Your task to perform on an android device: install app "Lyft - Rideshare, Bikes, Scooters & Transit" Image 0: 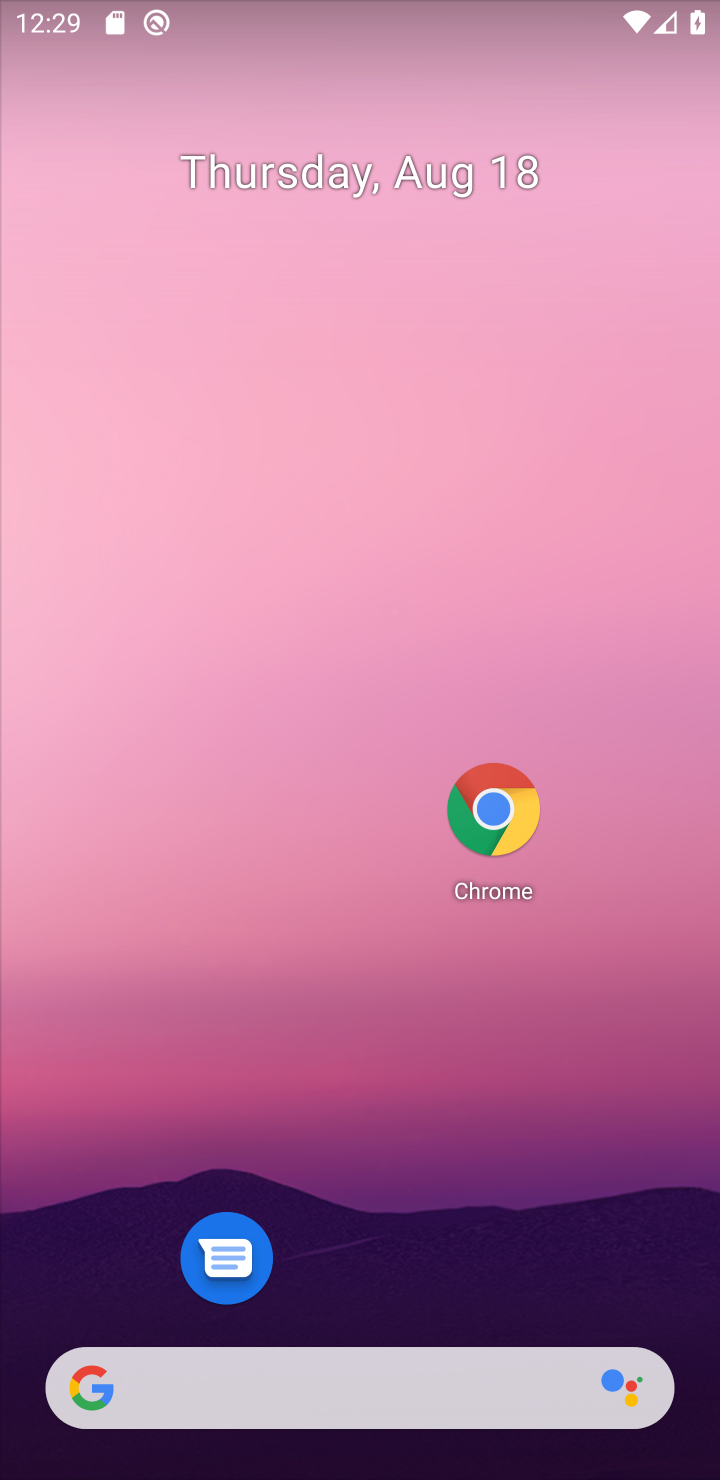
Step 0: drag from (386, 1152) to (401, 283)
Your task to perform on an android device: install app "Lyft - Rideshare, Bikes, Scooters & Transit" Image 1: 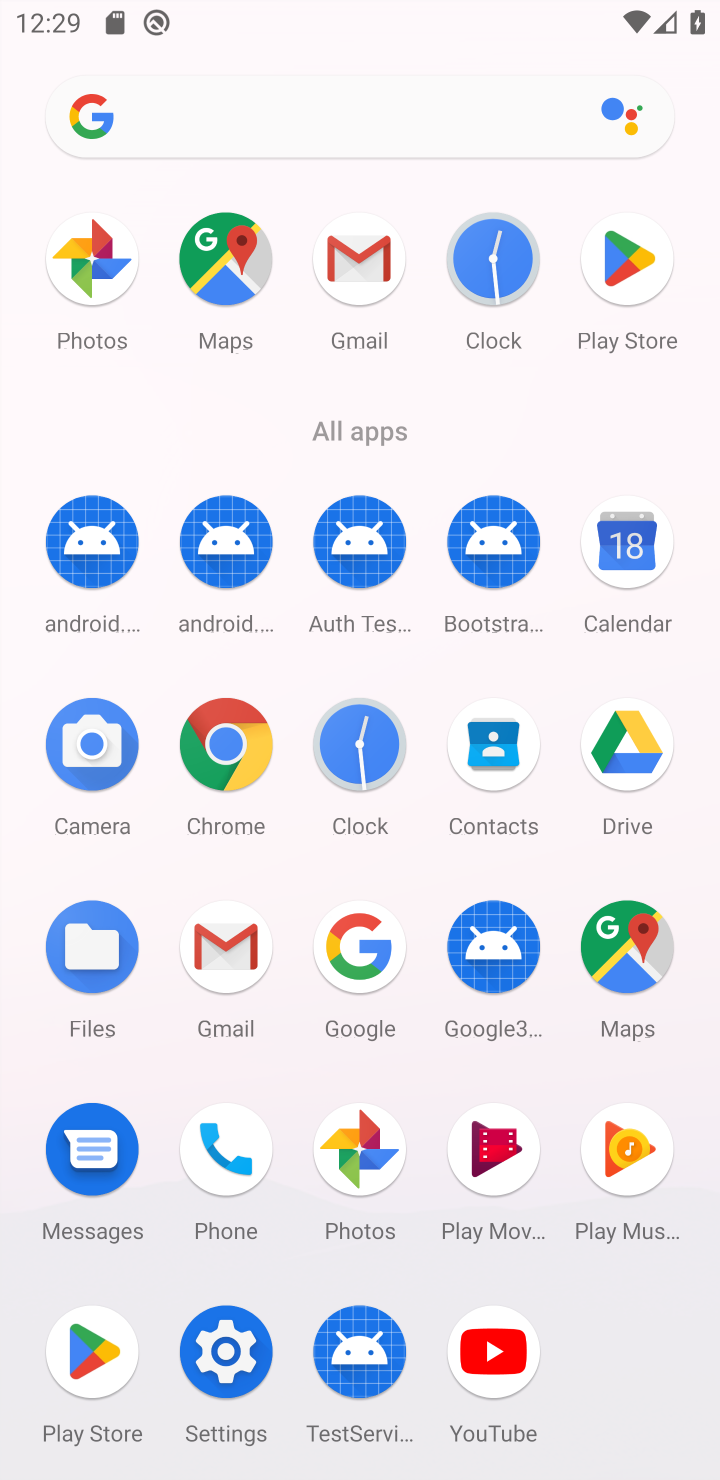
Step 1: click (616, 255)
Your task to perform on an android device: install app "Lyft - Rideshare, Bikes, Scooters & Transit" Image 2: 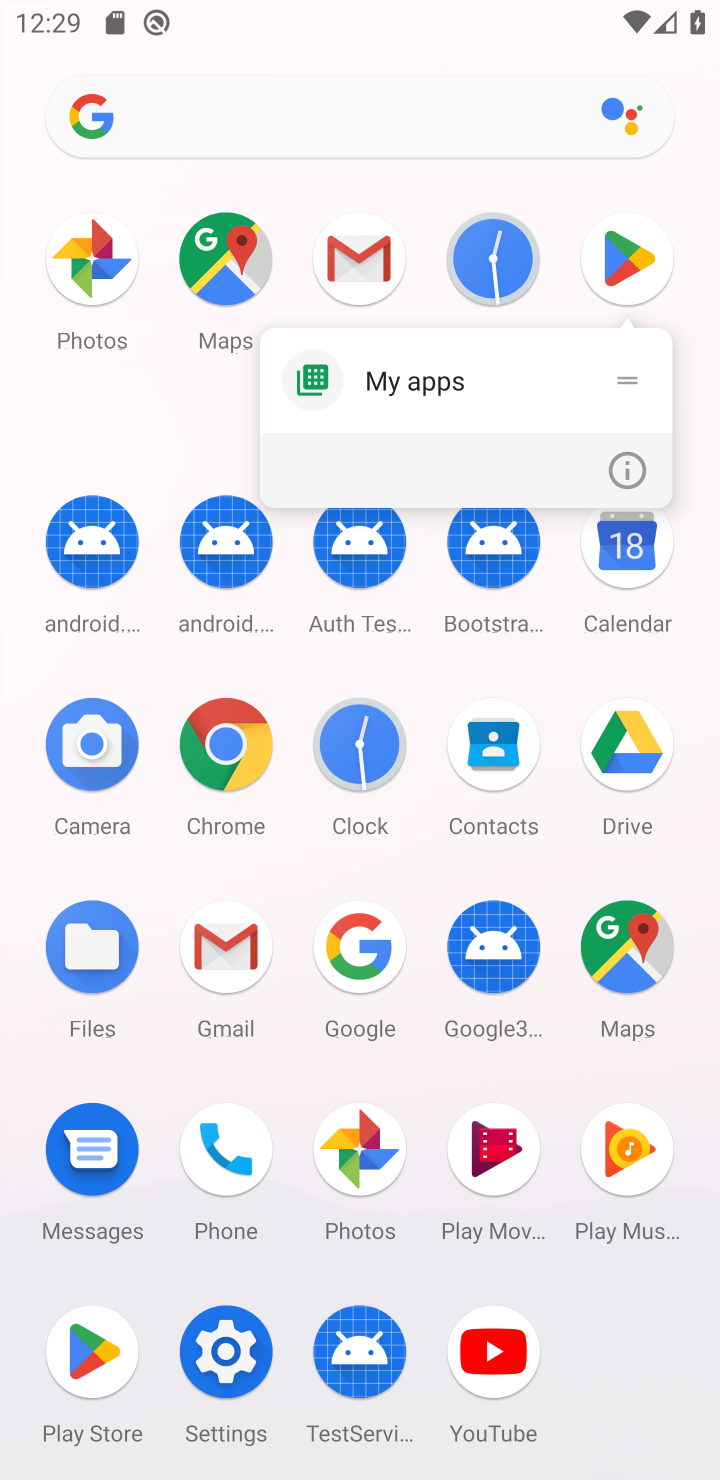
Step 2: click (616, 259)
Your task to perform on an android device: install app "Lyft - Rideshare, Bikes, Scooters & Transit" Image 3: 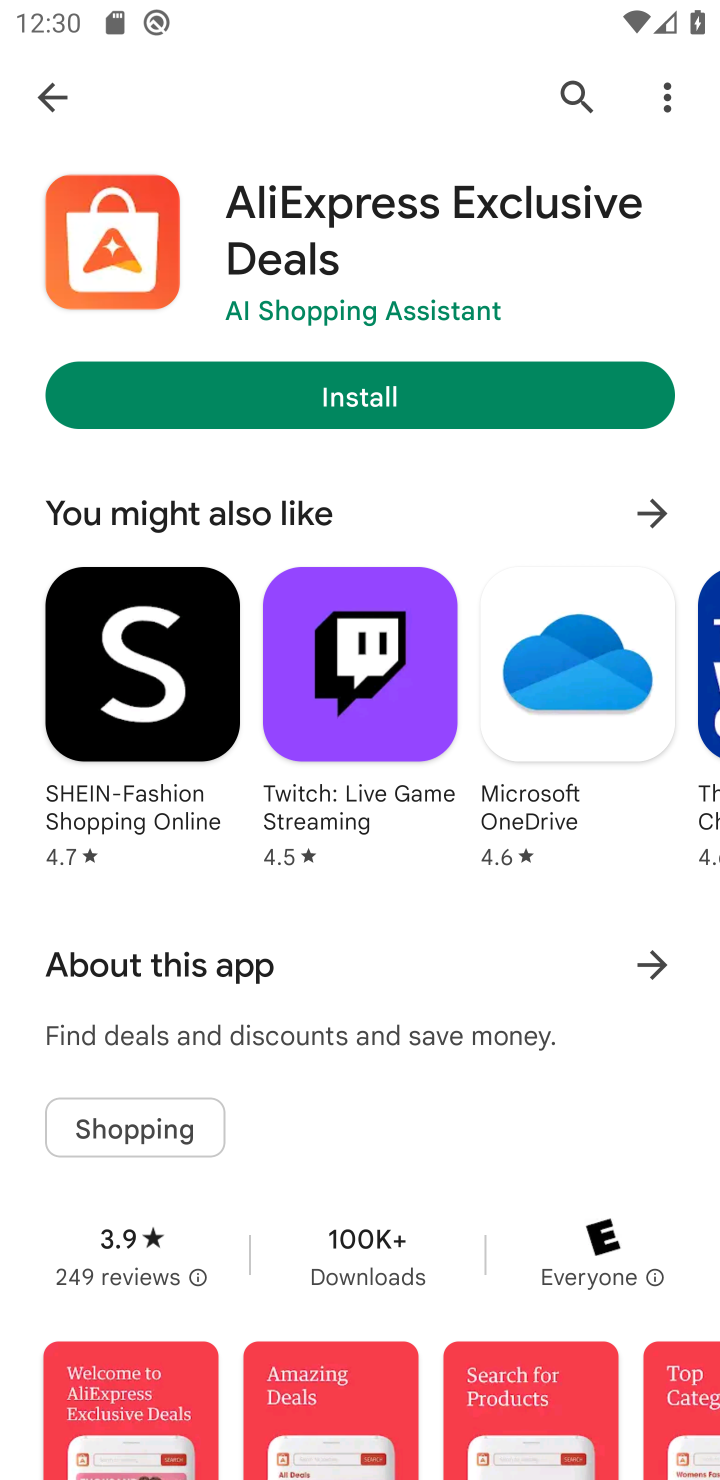
Step 3: click (42, 89)
Your task to perform on an android device: install app "Lyft - Rideshare, Bikes, Scooters & Transit" Image 4: 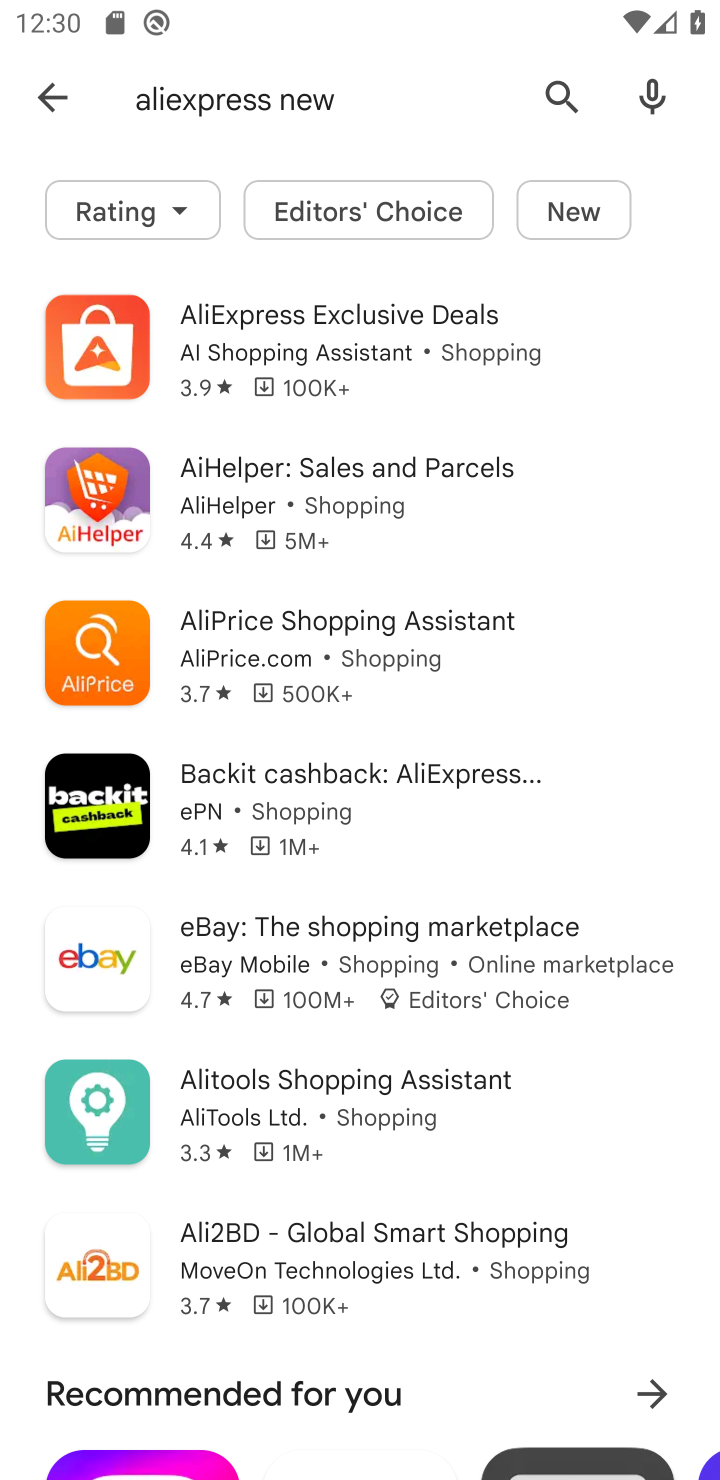
Step 4: click (56, 73)
Your task to perform on an android device: install app "Lyft - Rideshare, Bikes, Scooters & Transit" Image 5: 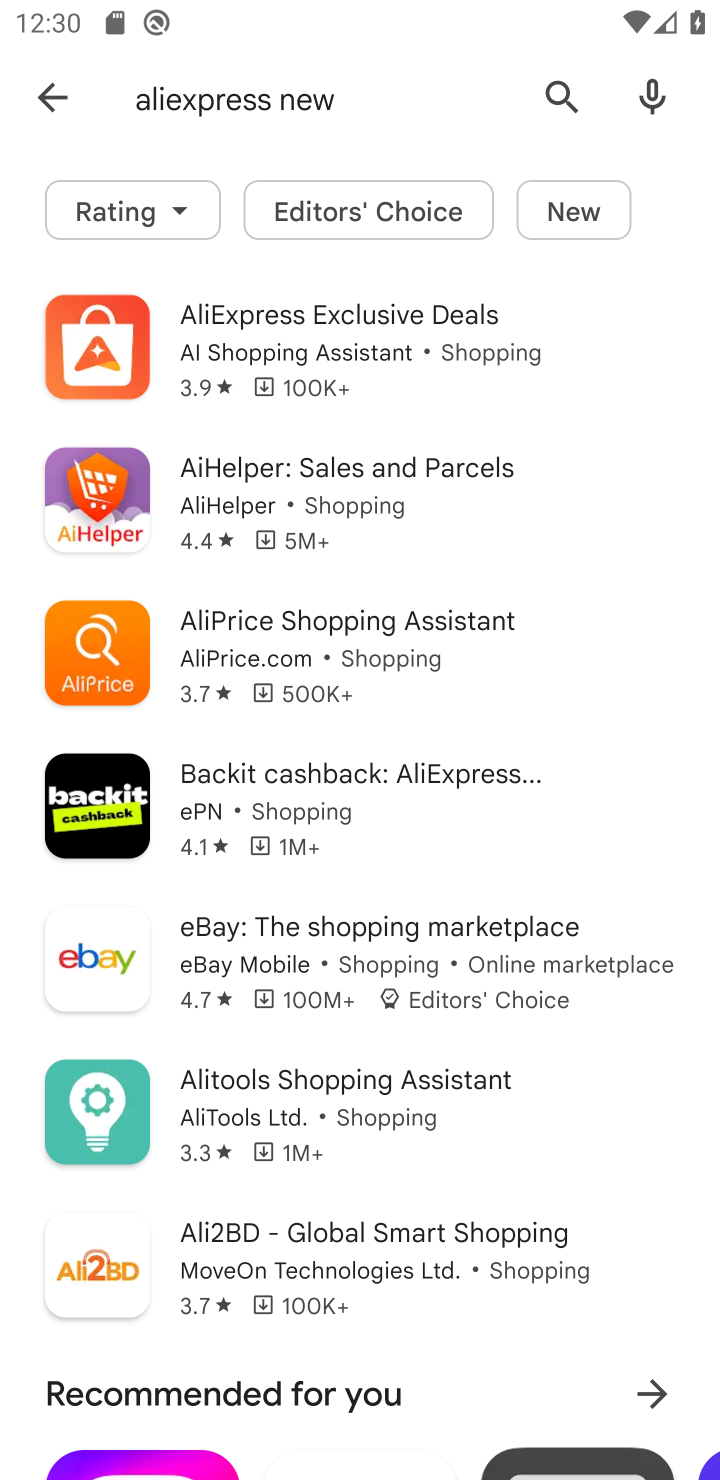
Step 5: click (63, 100)
Your task to perform on an android device: install app "Lyft - Rideshare, Bikes, Scooters & Transit" Image 6: 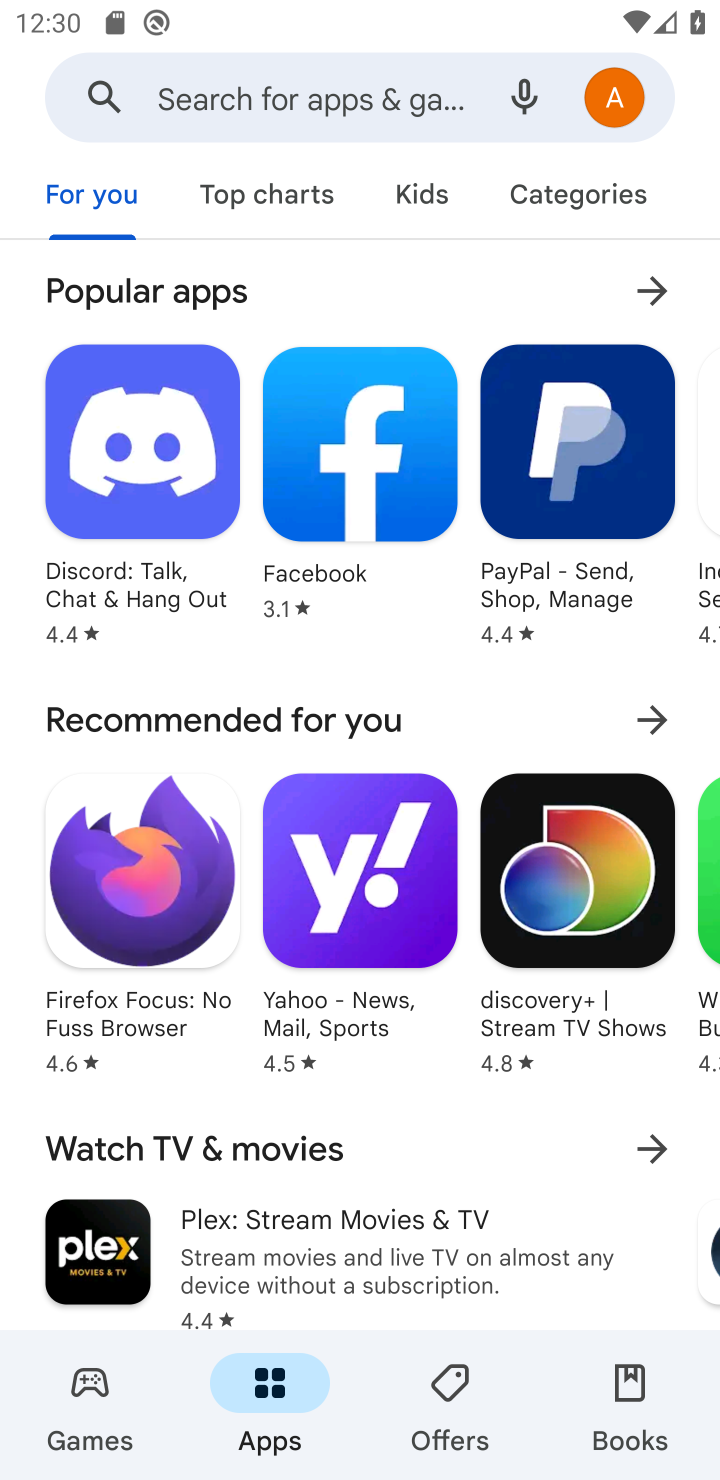
Step 6: click (305, 79)
Your task to perform on an android device: install app "Lyft - Rideshare, Bikes, Scooters & Transit" Image 7: 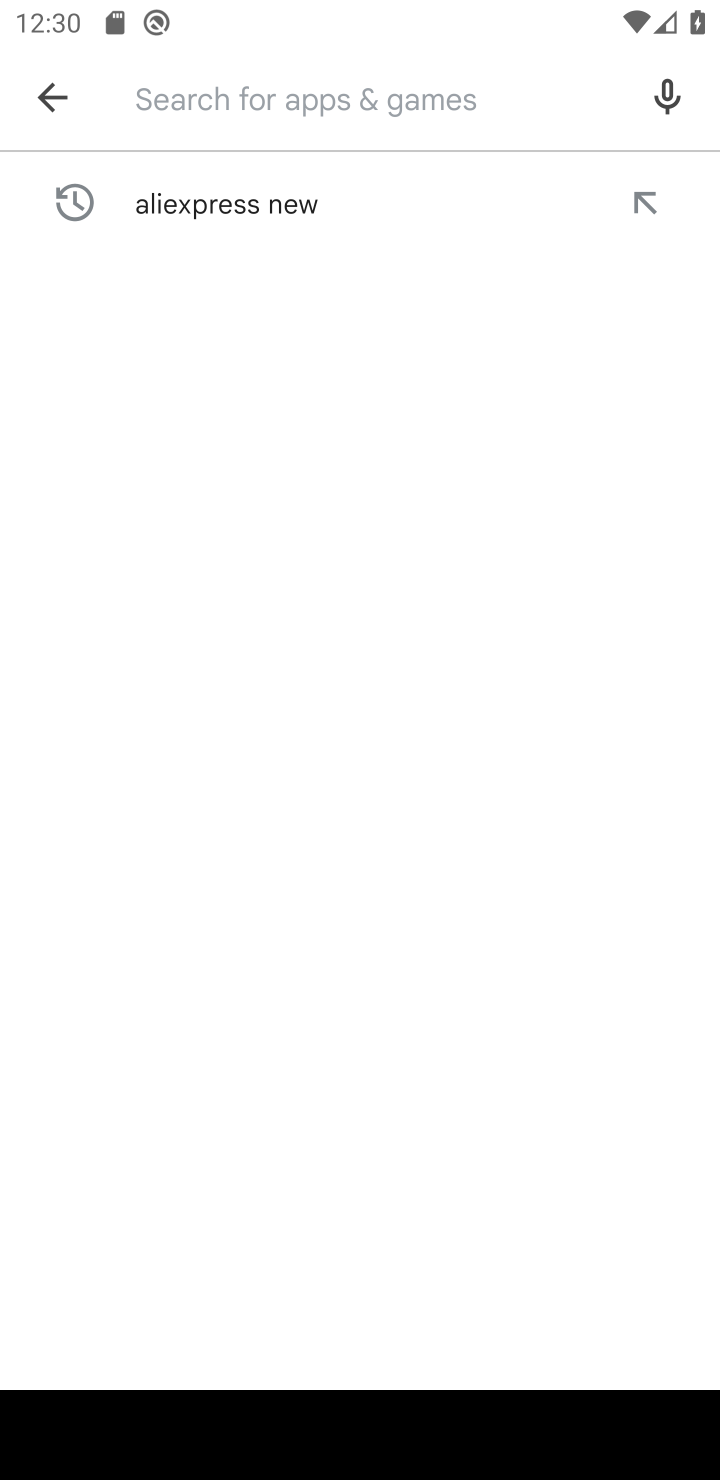
Step 7: type "Lyft - Rideshare, Bikes, Scooters & Transi "
Your task to perform on an android device: install app "Lyft - Rideshare, Bikes, Scooters & Transit" Image 8: 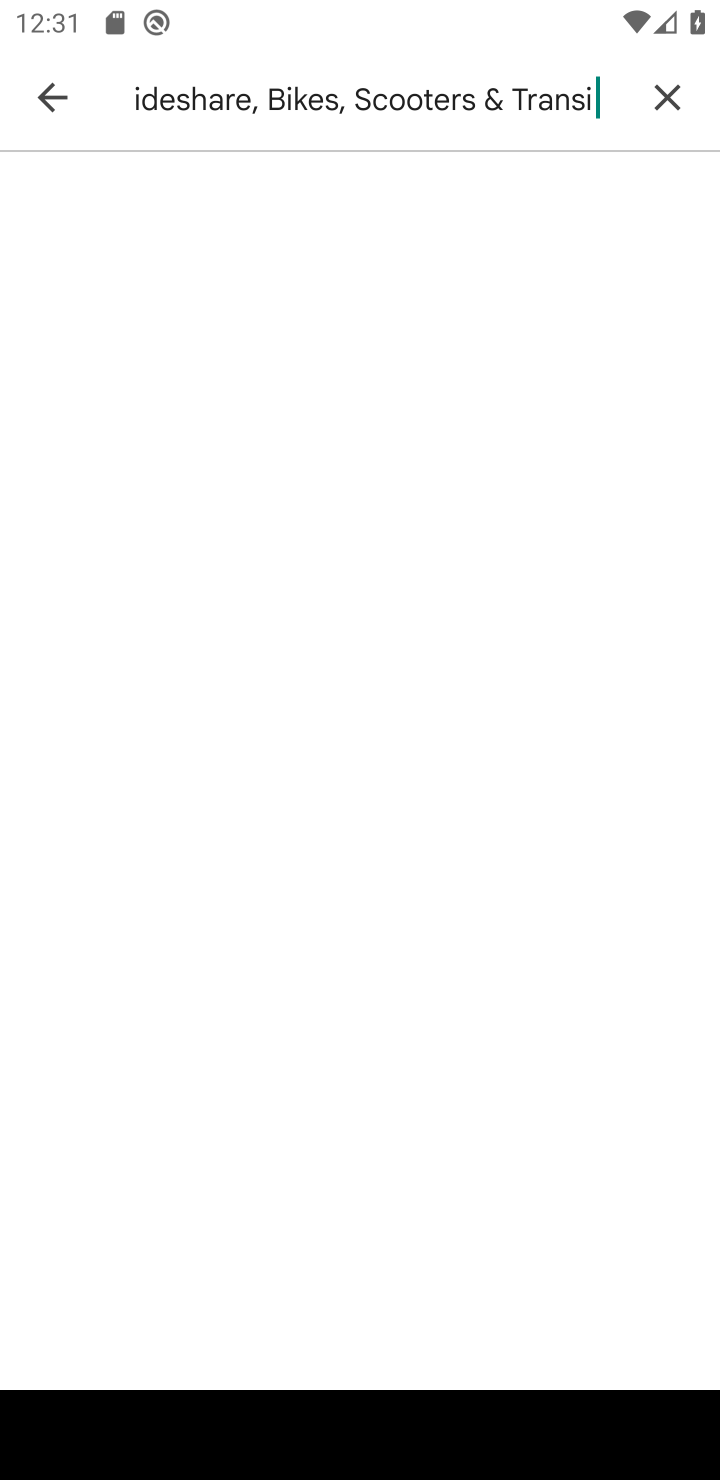
Step 8: task complete